Your task to perform on an android device: read, delete, or share a saved page in the chrome app Image 0: 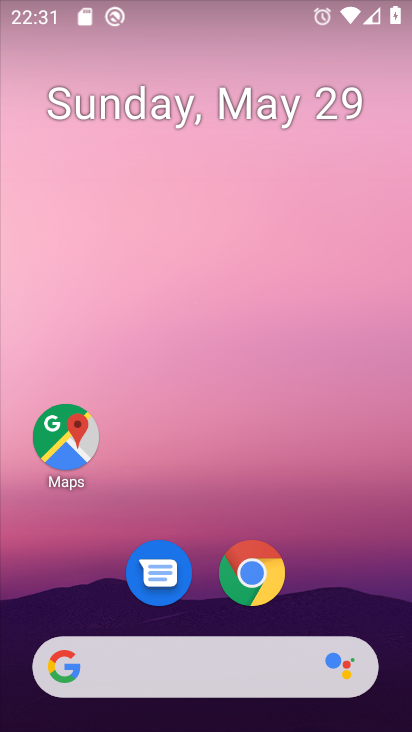
Step 0: click (248, 567)
Your task to perform on an android device: read, delete, or share a saved page in the chrome app Image 1: 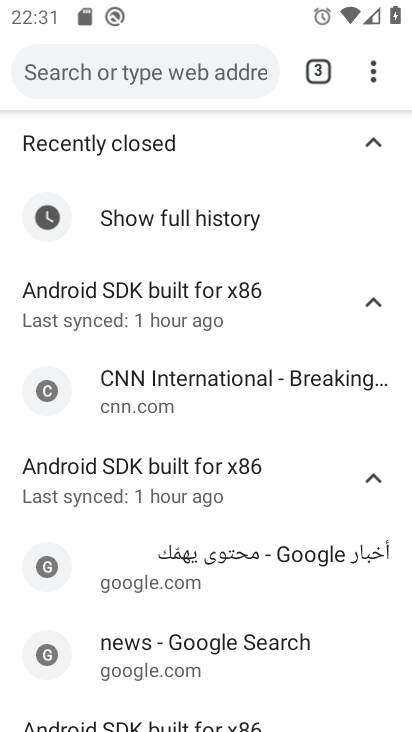
Step 1: click (372, 65)
Your task to perform on an android device: read, delete, or share a saved page in the chrome app Image 2: 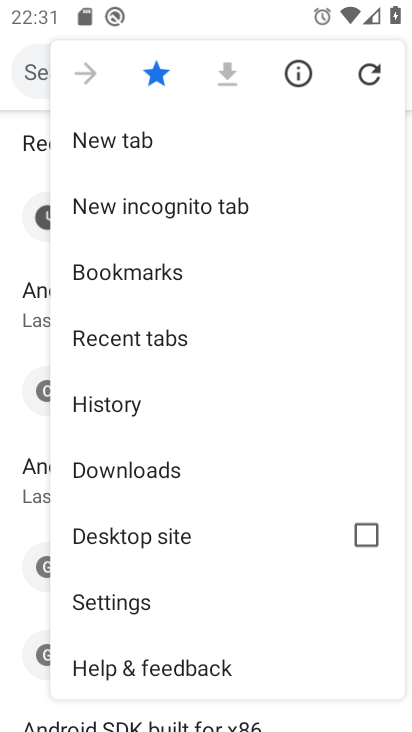
Step 2: click (169, 462)
Your task to perform on an android device: read, delete, or share a saved page in the chrome app Image 3: 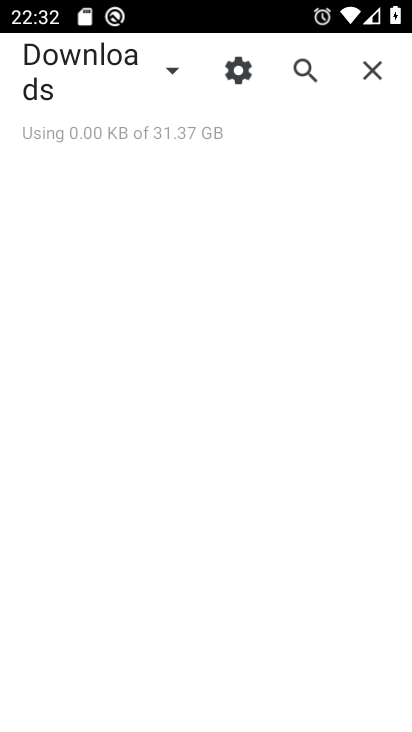
Step 3: task complete